Your task to perform on an android device: Open Google Maps Image 0: 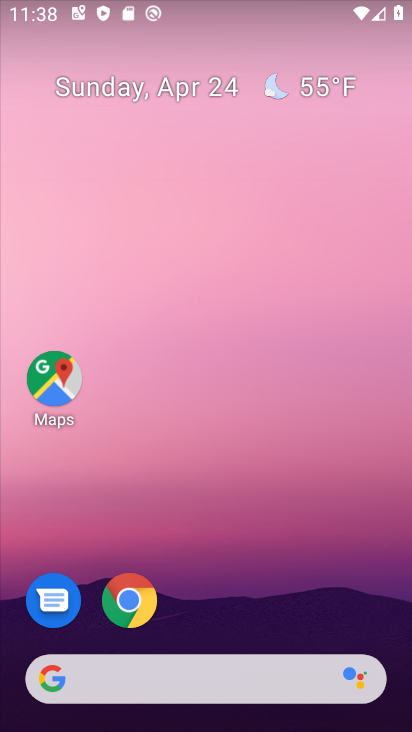
Step 0: click (51, 380)
Your task to perform on an android device: Open Google Maps Image 1: 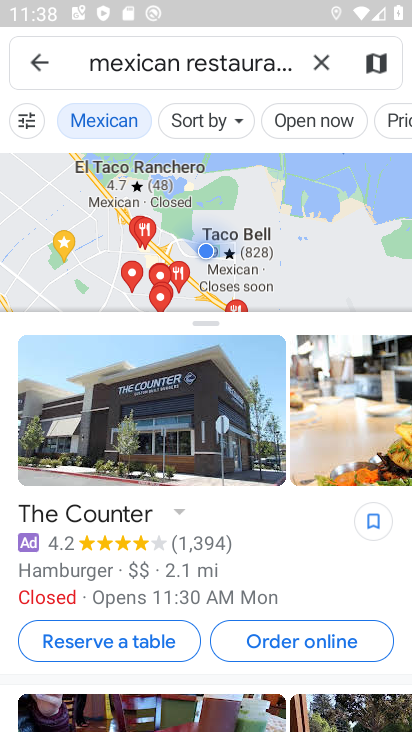
Step 1: task complete